Your task to perform on an android device: delete browsing data in the chrome app Image 0: 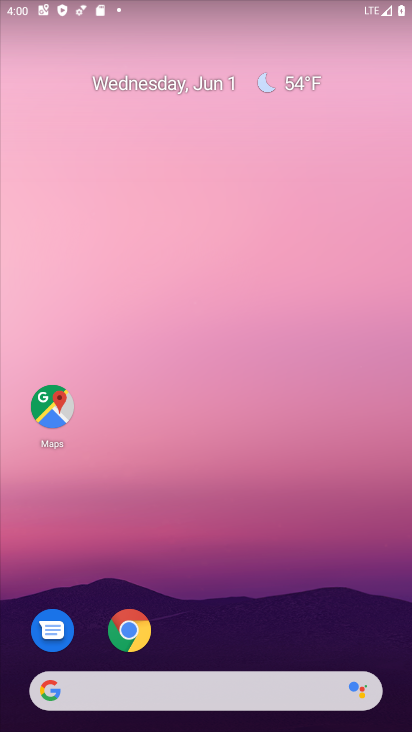
Step 0: drag from (310, 522) to (284, 53)
Your task to perform on an android device: delete browsing data in the chrome app Image 1: 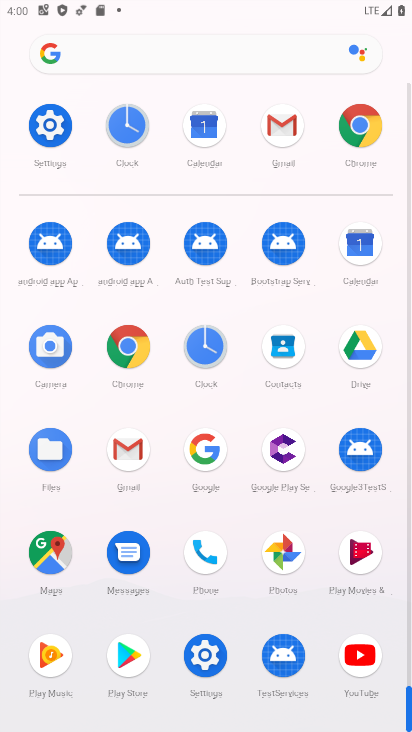
Step 1: click (128, 348)
Your task to perform on an android device: delete browsing data in the chrome app Image 2: 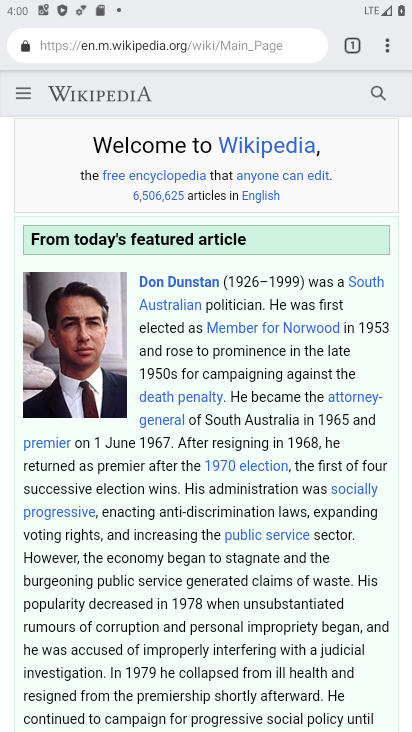
Step 2: drag from (381, 40) to (245, 250)
Your task to perform on an android device: delete browsing data in the chrome app Image 3: 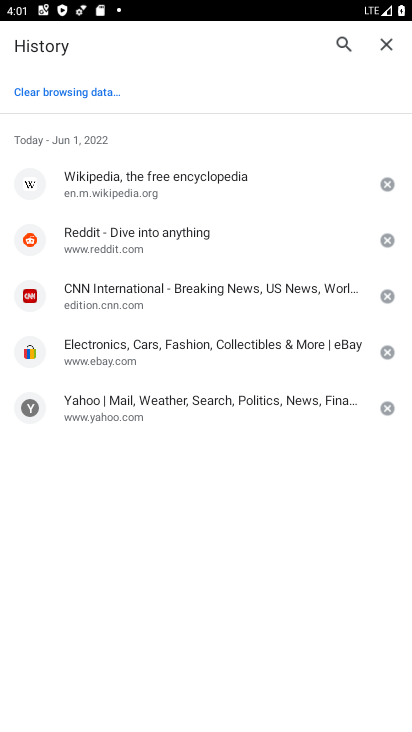
Step 3: click (71, 90)
Your task to perform on an android device: delete browsing data in the chrome app Image 4: 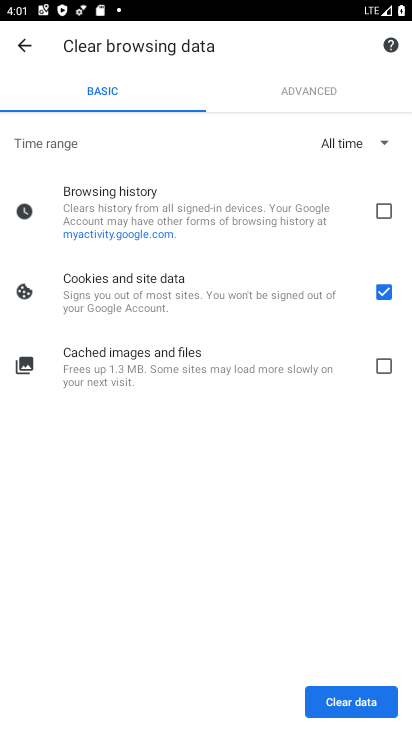
Step 4: click (375, 206)
Your task to perform on an android device: delete browsing data in the chrome app Image 5: 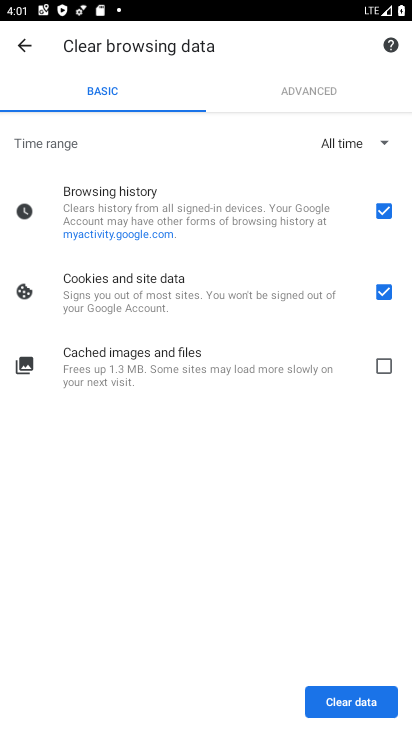
Step 5: click (387, 287)
Your task to perform on an android device: delete browsing data in the chrome app Image 6: 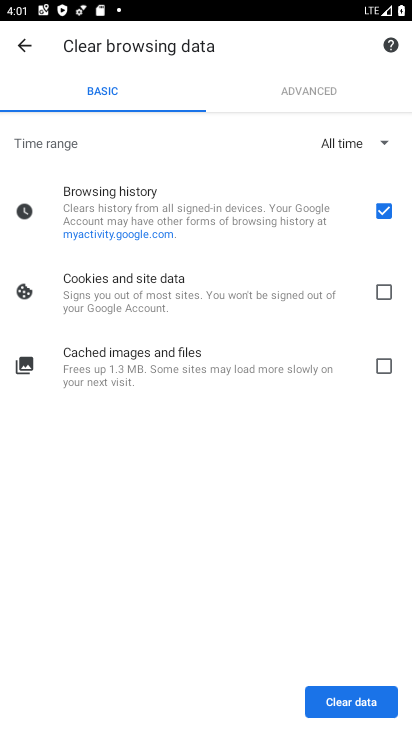
Step 6: click (360, 703)
Your task to perform on an android device: delete browsing data in the chrome app Image 7: 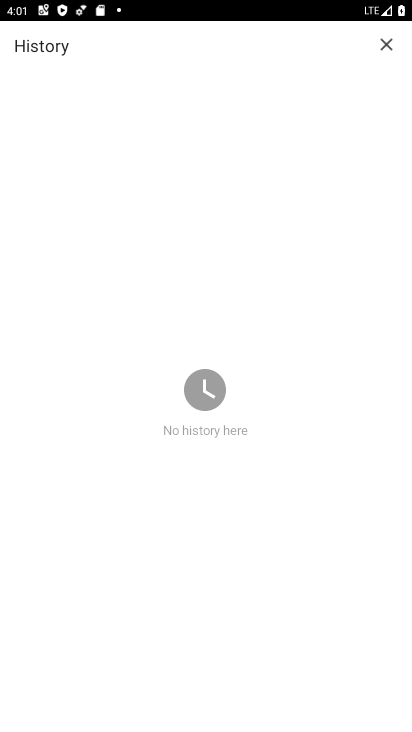
Step 7: task complete